Your task to perform on an android device: turn off javascript in the chrome app Image 0: 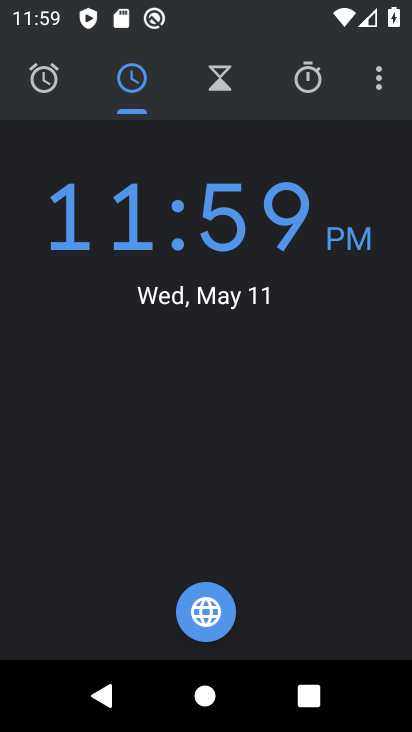
Step 0: press home button
Your task to perform on an android device: turn off javascript in the chrome app Image 1: 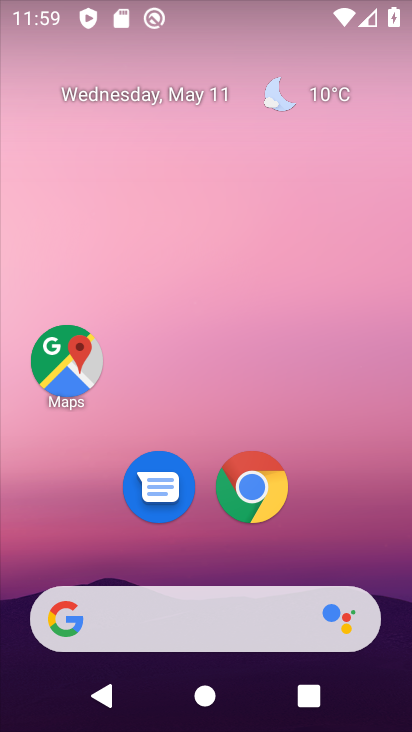
Step 1: click (257, 484)
Your task to perform on an android device: turn off javascript in the chrome app Image 2: 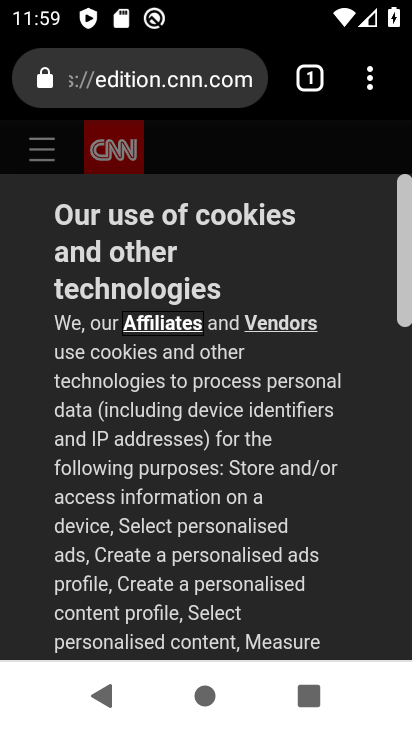
Step 2: click (365, 80)
Your task to perform on an android device: turn off javascript in the chrome app Image 3: 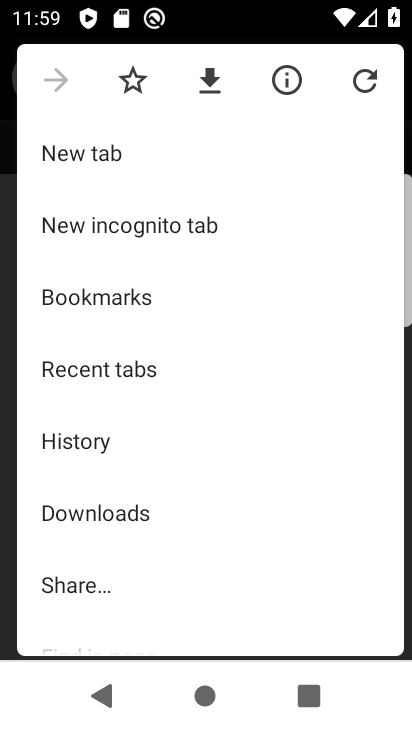
Step 3: drag from (215, 551) to (213, 286)
Your task to perform on an android device: turn off javascript in the chrome app Image 4: 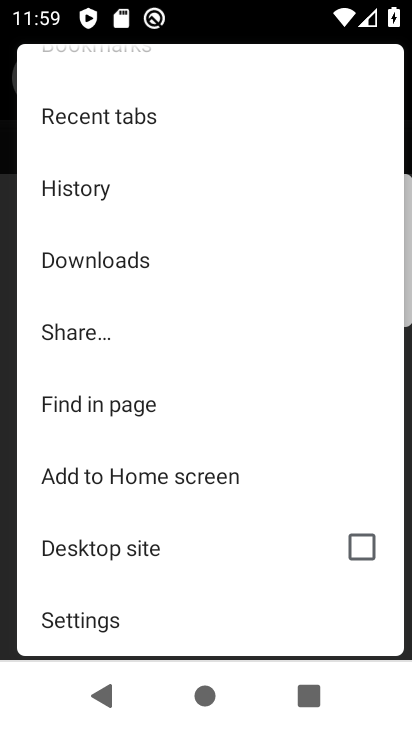
Step 4: click (99, 611)
Your task to perform on an android device: turn off javascript in the chrome app Image 5: 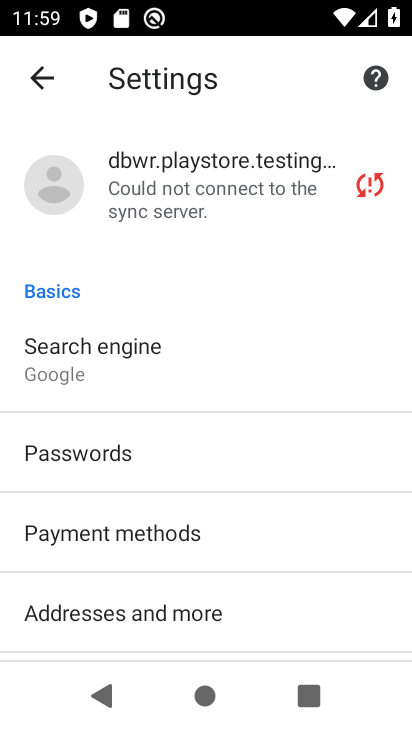
Step 5: drag from (249, 596) to (266, 209)
Your task to perform on an android device: turn off javascript in the chrome app Image 6: 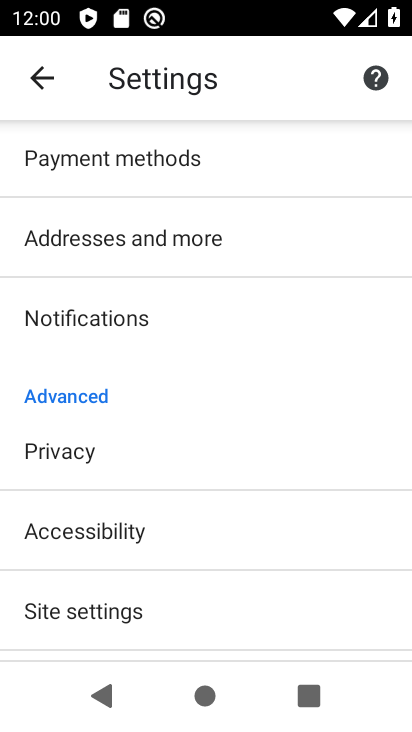
Step 6: drag from (227, 593) to (258, 332)
Your task to perform on an android device: turn off javascript in the chrome app Image 7: 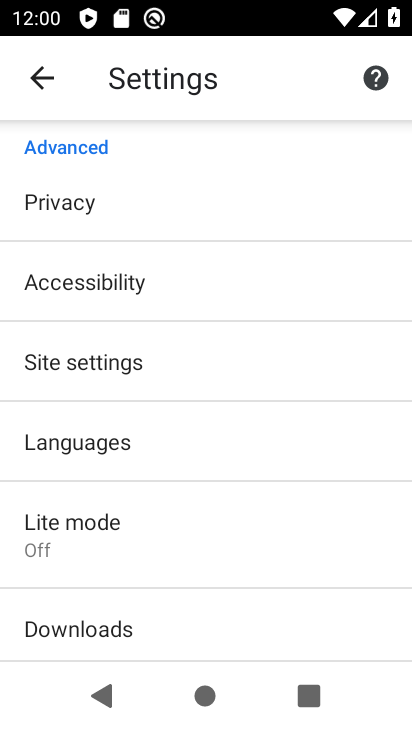
Step 7: click (69, 325)
Your task to perform on an android device: turn off javascript in the chrome app Image 8: 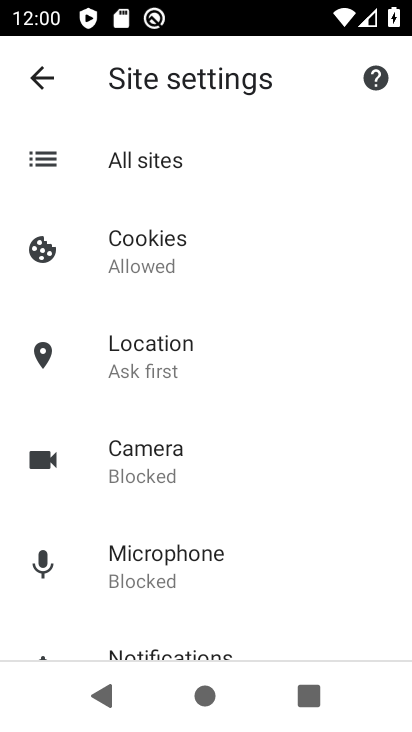
Step 8: drag from (295, 616) to (307, 270)
Your task to perform on an android device: turn off javascript in the chrome app Image 9: 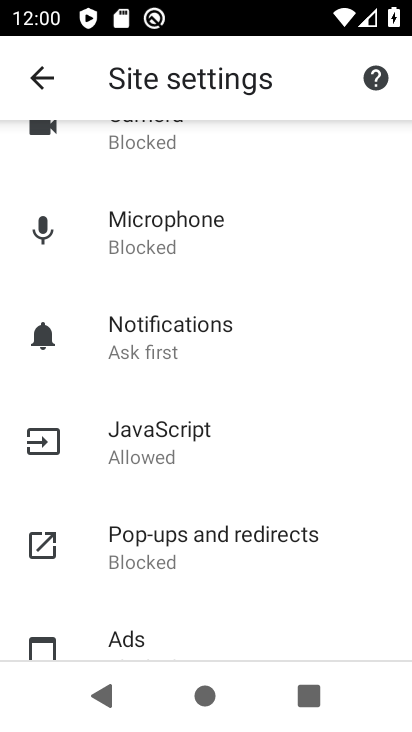
Step 9: click (127, 428)
Your task to perform on an android device: turn off javascript in the chrome app Image 10: 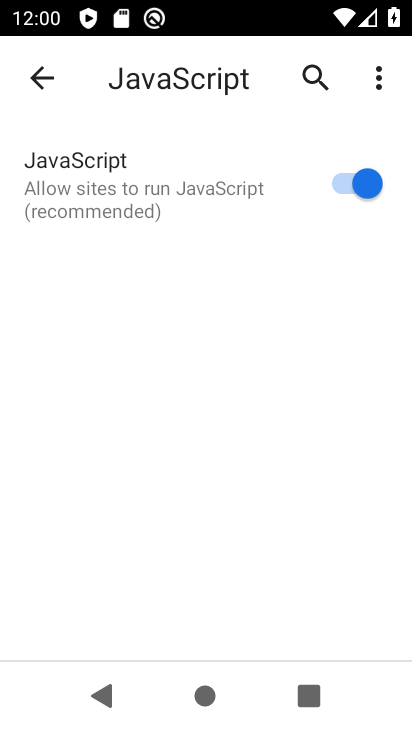
Step 10: click (341, 182)
Your task to perform on an android device: turn off javascript in the chrome app Image 11: 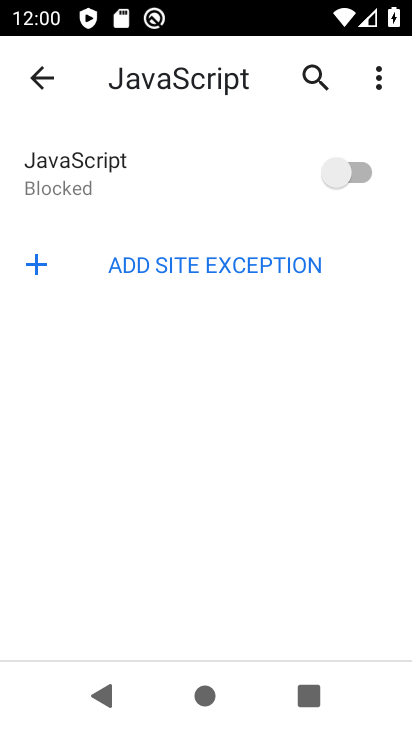
Step 11: task complete